Your task to perform on an android device: open wifi settings Image 0: 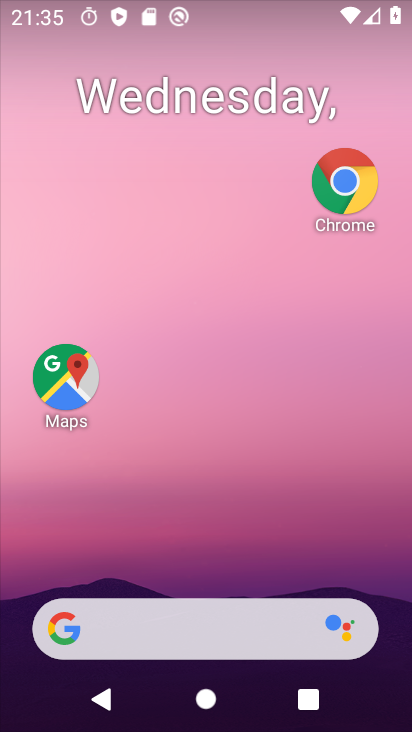
Step 0: drag from (233, 644) to (218, 294)
Your task to perform on an android device: open wifi settings Image 1: 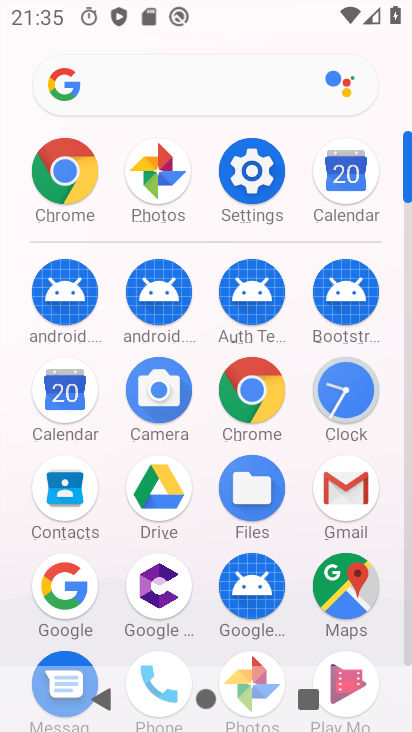
Step 1: click (243, 179)
Your task to perform on an android device: open wifi settings Image 2: 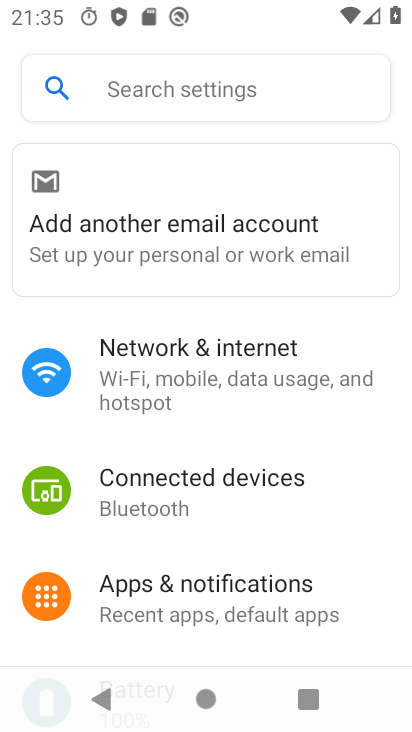
Step 2: click (211, 94)
Your task to perform on an android device: open wifi settings Image 3: 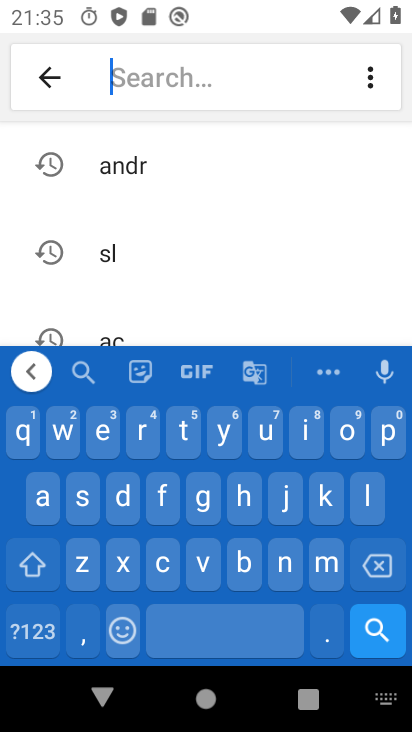
Step 3: click (61, 77)
Your task to perform on an android device: open wifi settings Image 4: 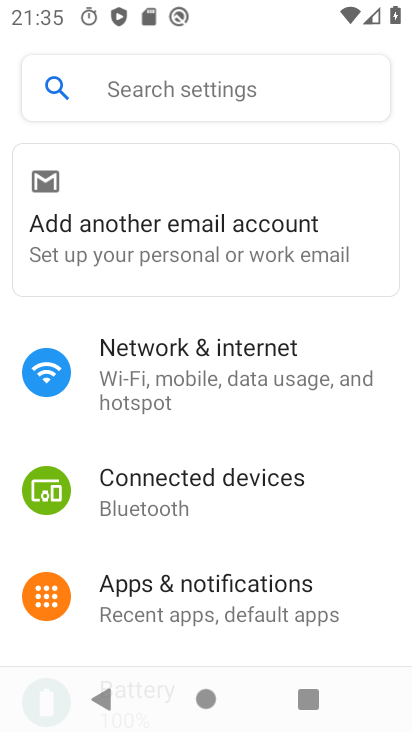
Step 4: click (146, 349)
Your task to perform on an android device: open wifi settings Image 5: 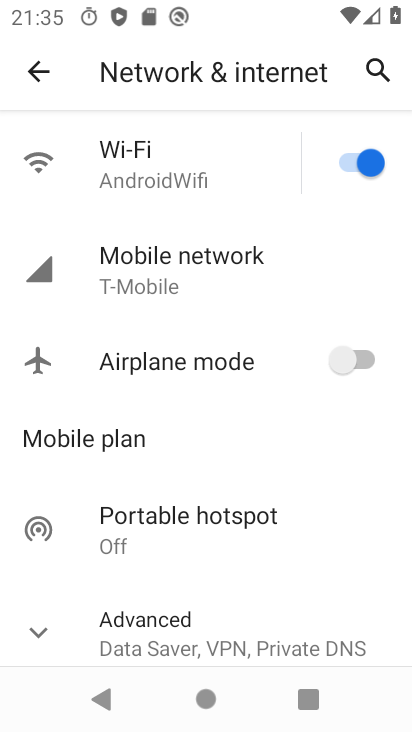
Step 5: click (168, 157)
Your task to perform on an android device: open wifi settings Image 6: 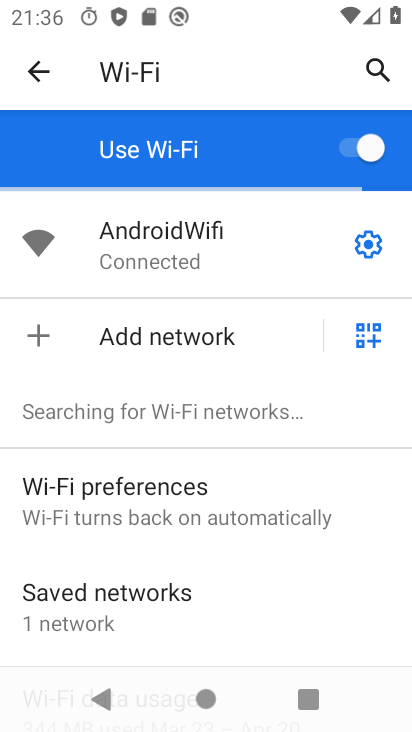
Step 6: task complete